Your task to perform on an android device: Go to eBay Image 0: 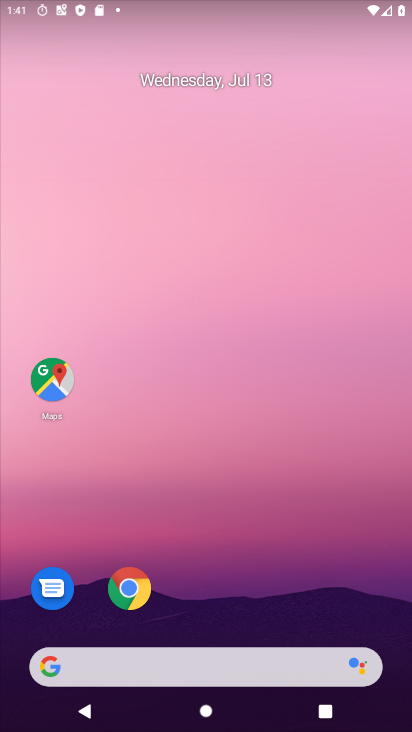
Step 0: click (137, 591)
Your task to perform on an android device: Go to eBay Image 1: 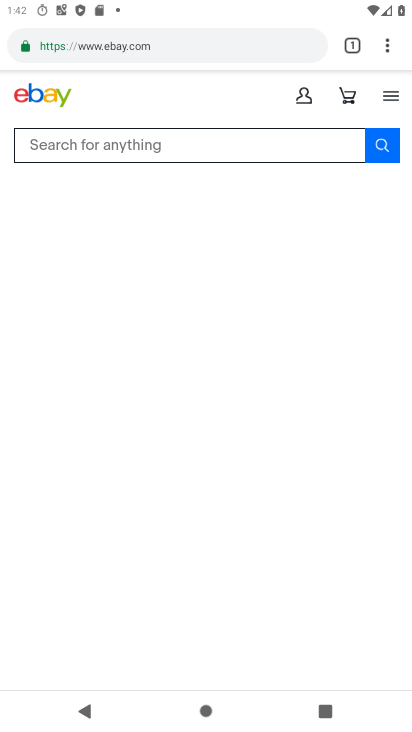
Step 1: task complete